Your task to perform on an android device: What's on my calendar today? Image 0: 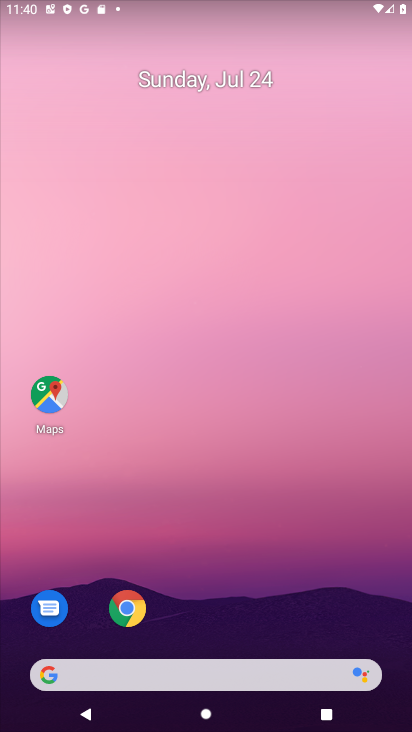
Step 0: drag from (257, 632) to (277, 87)
Your task to perform on an android device: What's on my calendar today? Image 1: 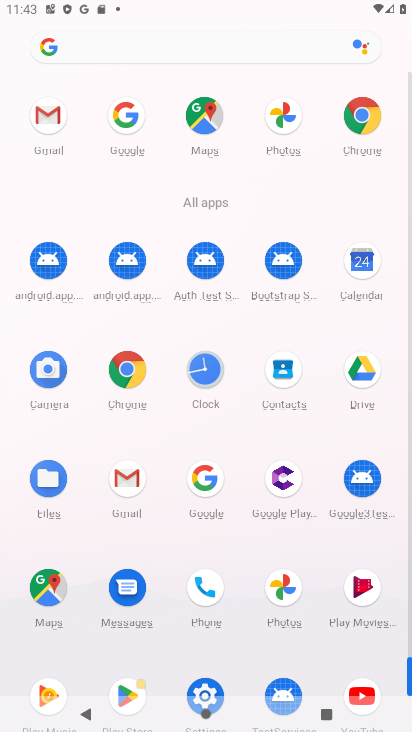
Step 1: click (368, 265)
Your task to perform on an android device: What's on my calendar today? Image 2: 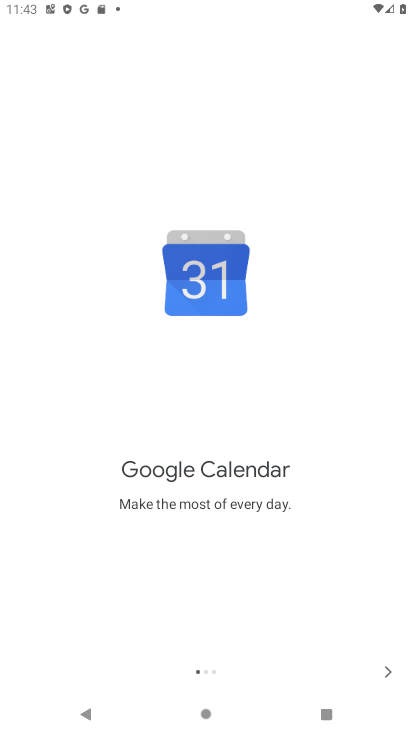
Step 2: click (388, 678)
Your task to perform on an android device: What's on my calendar today? Image 3: 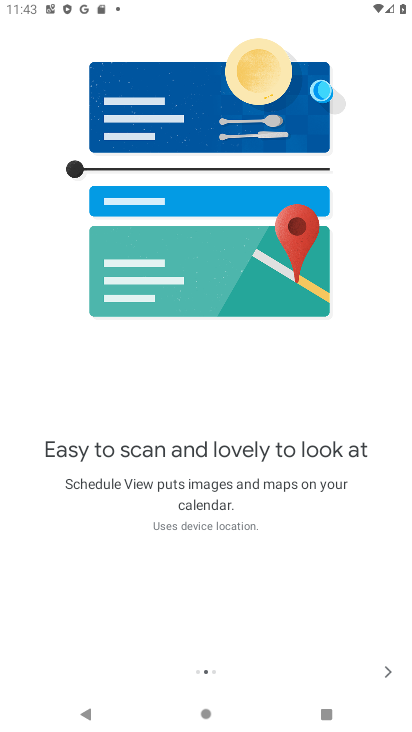
Step 3: click (396, 667)
Your task to perform on an android device: What's on my calendar today? Image 4: 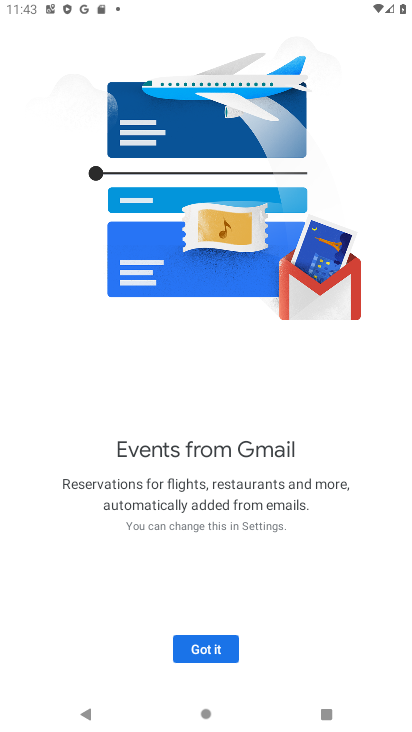
Step 4: click (192, 657)
Your task to perform on an android device: What's on my calendar today? Image 5: 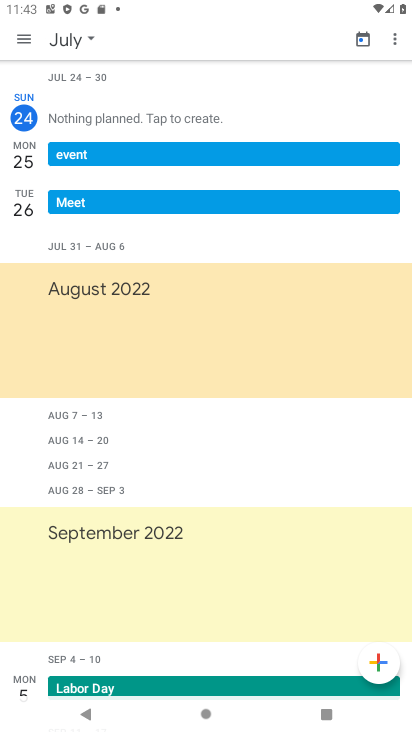
Step 5: click (61, 64)
Your task to perform on an android device: What's on my calendar today? Image 6: 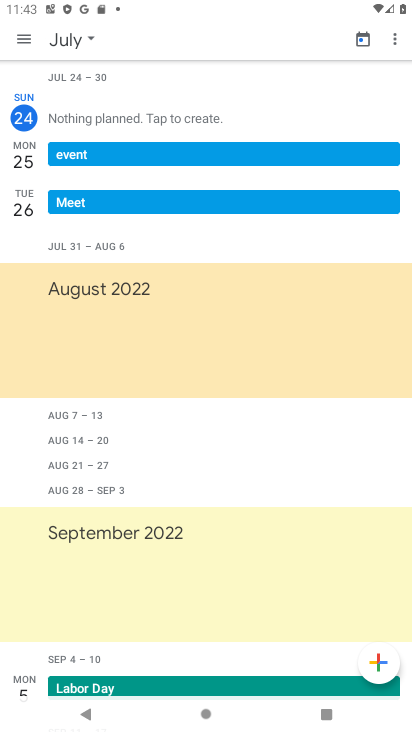
Step 6: task complete